Your task to perform on an android device: What's the weather going to be tomorrow? Image 0: 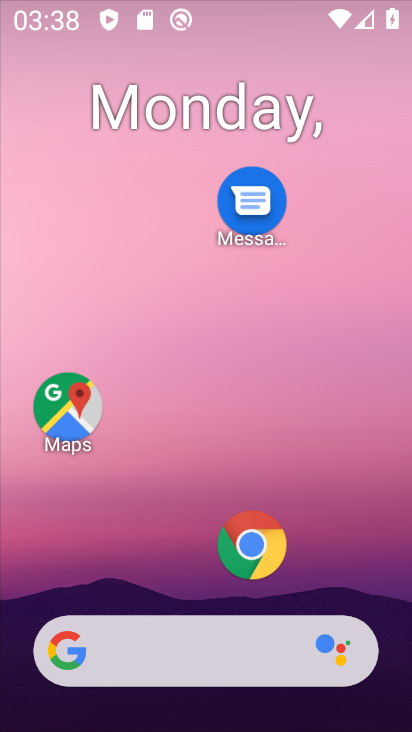
Step 0: drag from (107, 570) to (231, 153)
Your task to perform on an android device: What's the weather going to be tomorrow? Image 1: 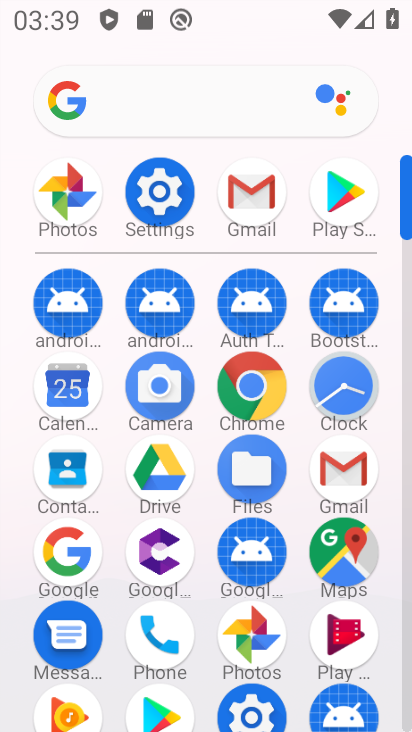
Step 1: click (218, 110)
Your task to perform on an android device: What's the weather going to be tomorrow? Image 2: 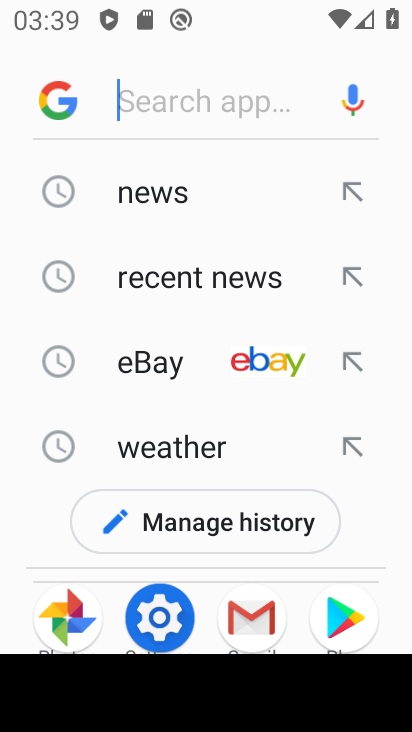
Step 2: click (167, 452)
Your task to perform on an android device: What's the weather going to be tomorrow? Image 3: 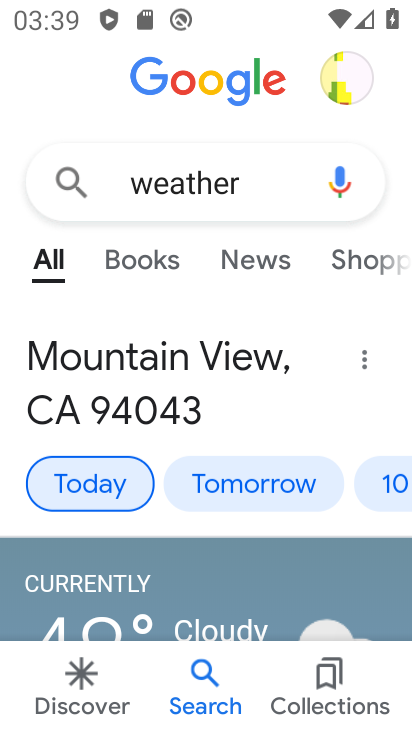
Step 3: click (261, 477)
Your task to perform on an android device: What's the weather going to be tomorrow? Image 4: 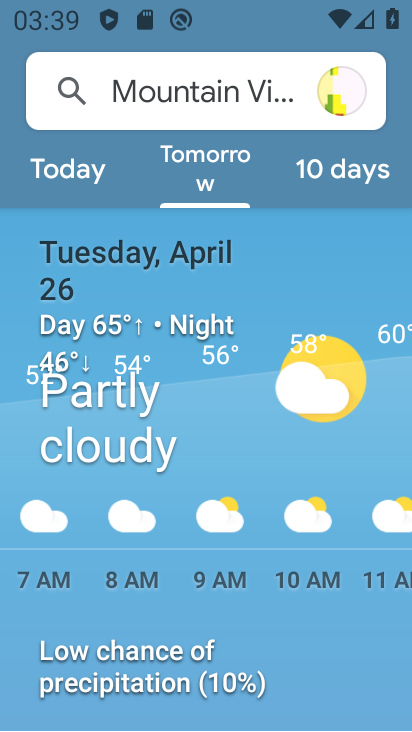
Step 4: task complete